Your task to perform on an android device: turn vacation reply on in the gmail app Image 0: 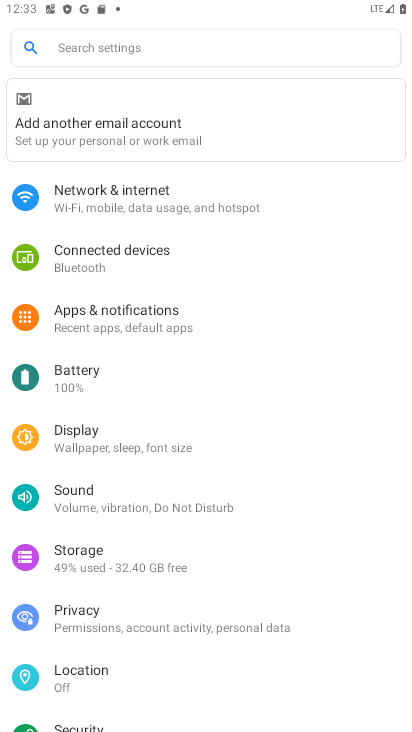
Step 0: press home button
Your task to perform on an android device: turn vacation reply on in the gmail app Image 1: 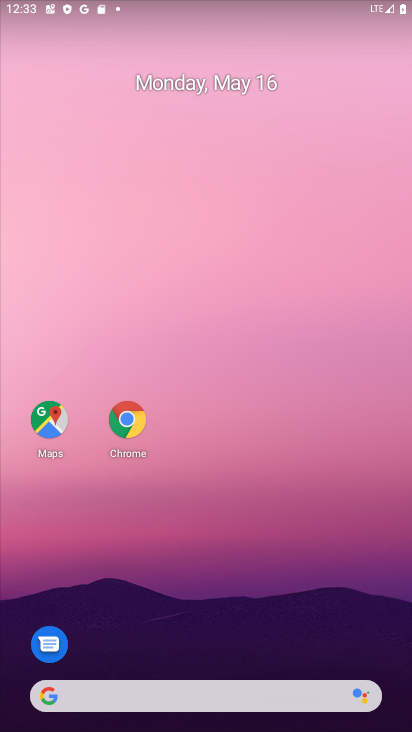
Step 1: drag from (179, 626) to (95, 93)
Your task to perform on an android device: turn vacation reply on in the gmail app Image 2: 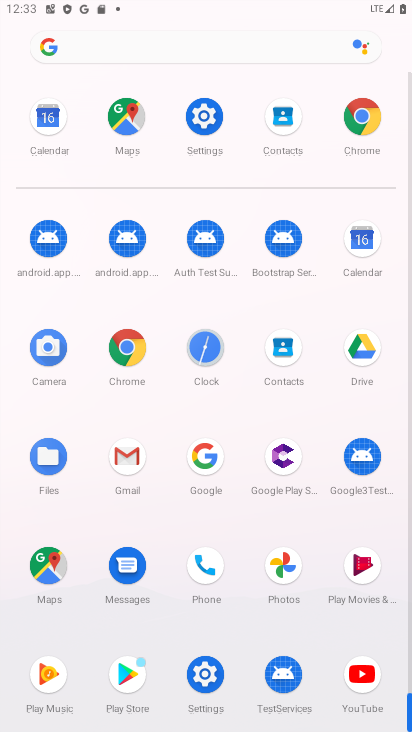
Step 2: click (127, 449)
Your task to perform on an android device: turn vacation reply on in the gmail app Image 3: 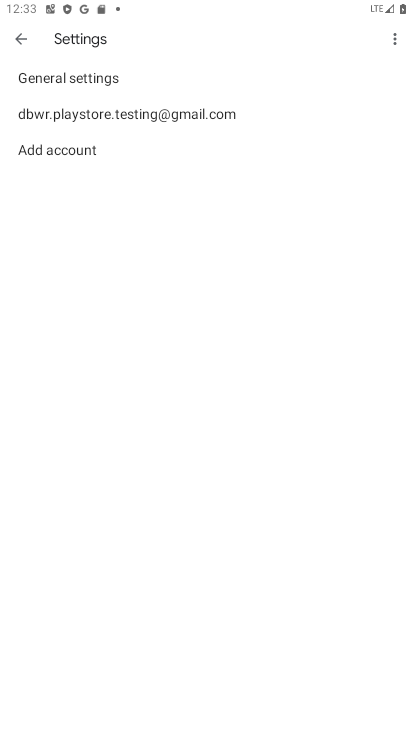
Step 3: click (155, 117)
Your task to perform on an android device: turn vacation reply on in the gmail app Image 4: 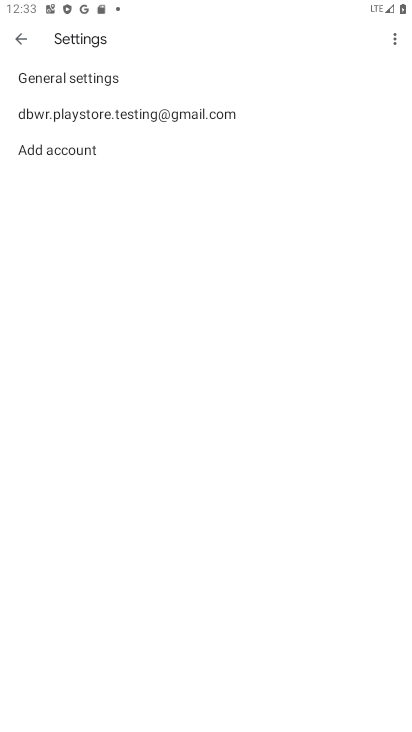
Step 4: click (155, 117)
Your task to perform on an android device: turn vacation reply on in the gmail app Image 5: 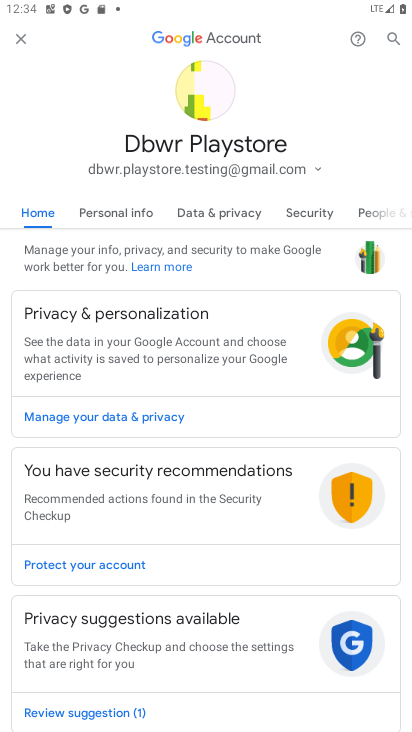
Step 5: drag from (171, 574) to (221, 208)
Your task to perform on an android device: turn vacation reply on in the gmail app Image 6: 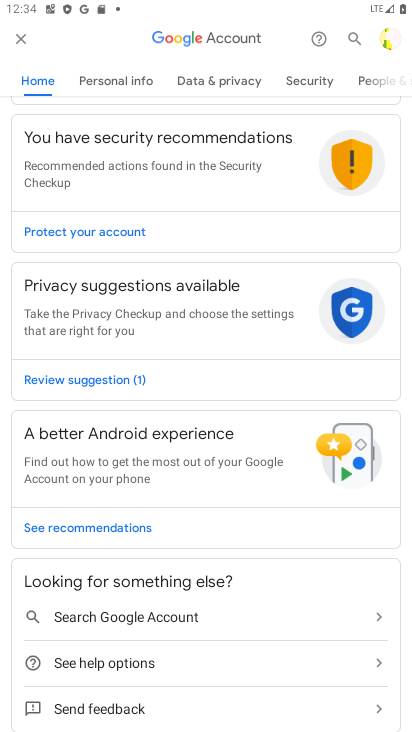
Step 6: drag from (201, 170) to (253, 703)
Your task to perform on an android device: turn vacation reply on in the gmail app Image 7: 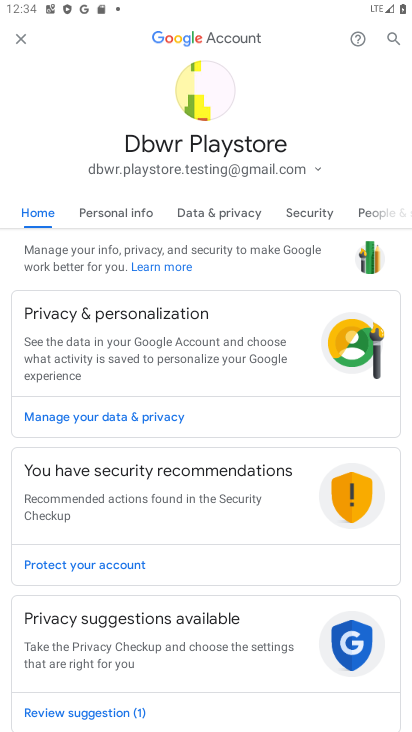
Step 7: click (20, 35)
Your task to perform on an android device: turn vacation reply on in the gmail app Image 8: 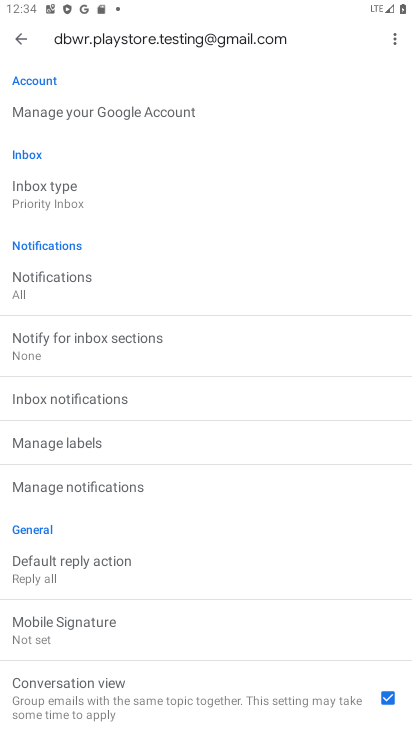
Step 8: drag from (205, 101) to (250, 1)
Your task to perform on an android device: turn vacation reply on in the gmail app Image 9: 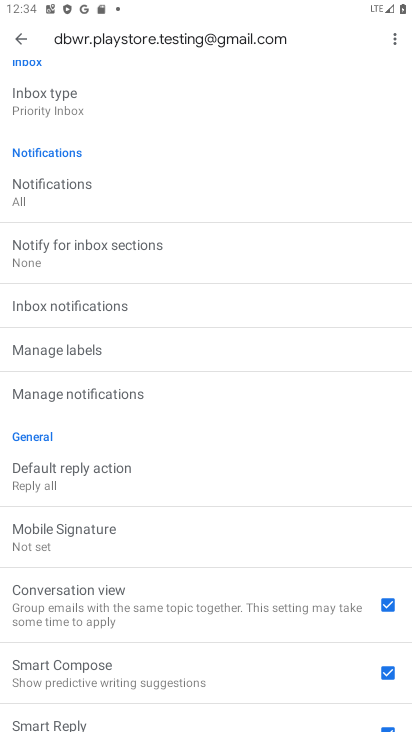
Step 9: drag from (193, 609) to (266, 114)
Your task to perform on an android device: turn vacation reply on in the gmail app Image 10: 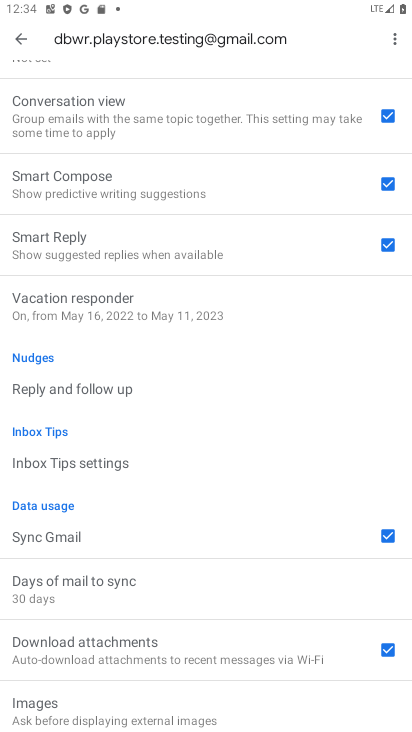
Step 10: click (110, 307)
Your task to perform on an android device: turn vacation reply on in the gmail app Image 11: 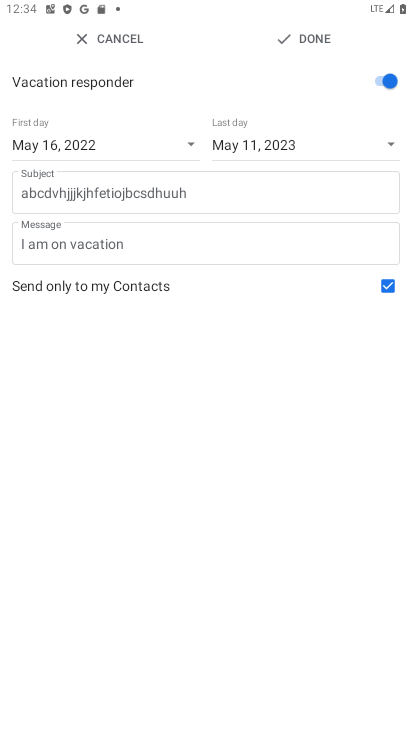
Step 11: click (310, 45)
Your task to perform on an android device: turn vacation reply on in the gmail app Image 12: 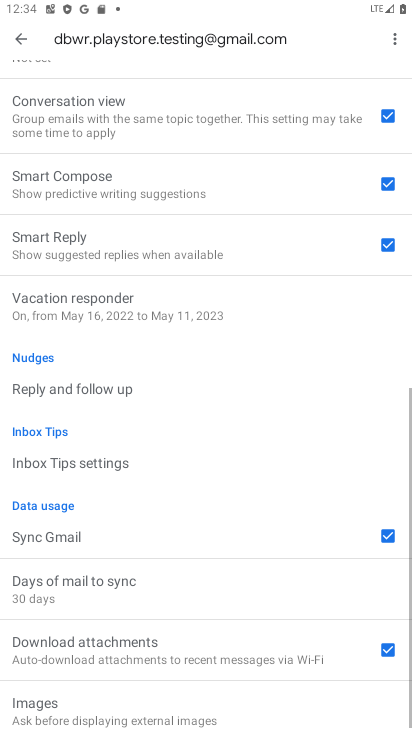
Step 12: task complete